Your task to perform on an android device: Search for flights from NYC to Barcelona Image 0: 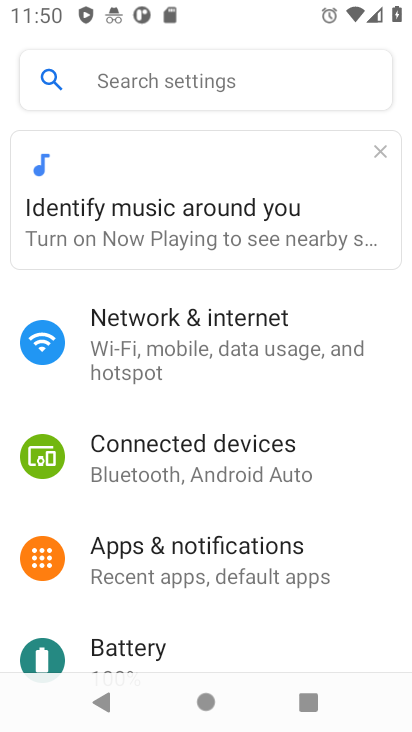
Step 0: press home button
Your task to perform on an android device: Search for flights from NYC to Barcelona Image 1: 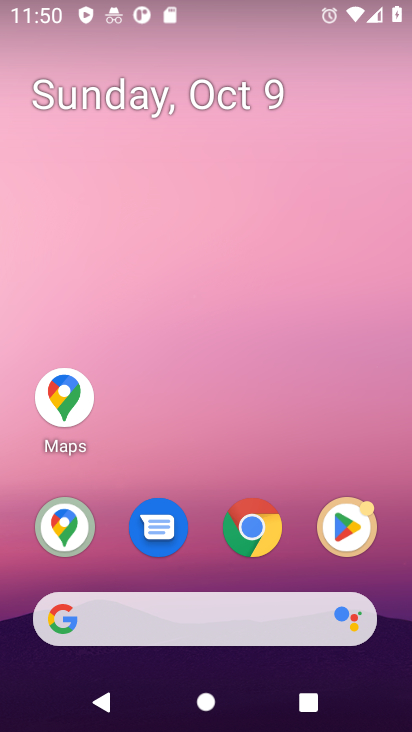
Step 1: click (270, 530)
Your task to perform on an android device: Search for flights from NYC to Barcelona Image 2: 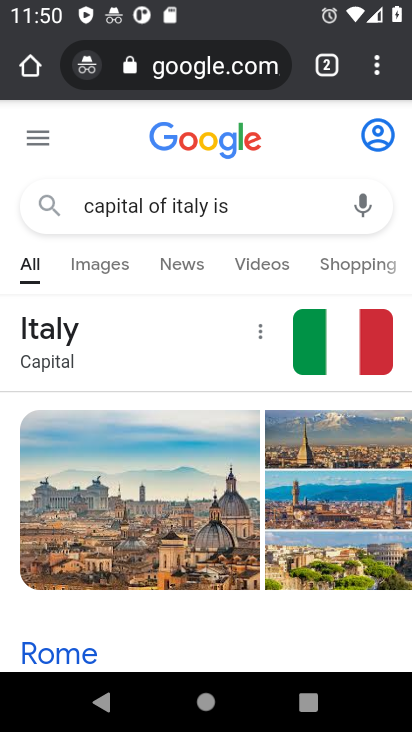
Step 2: click (196, 66)
Your task to perform on an android device: Search for flights from NYC to Barcelona Image 3: 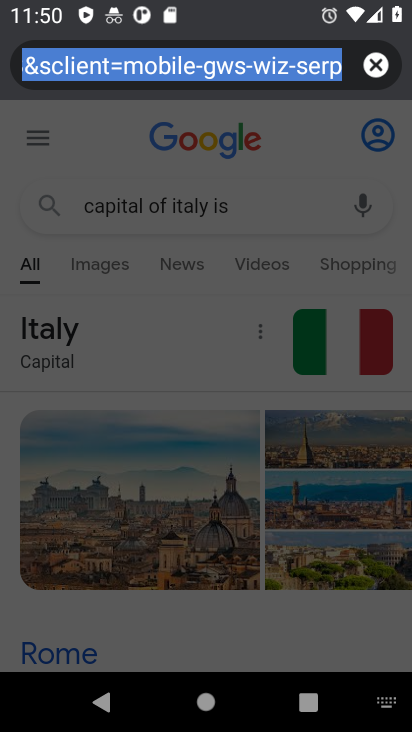
Step 3: type "flights from NYC to Barcelona"
Your task to perform on an android device: Search for flights from NYC to Barcelona Image 4: 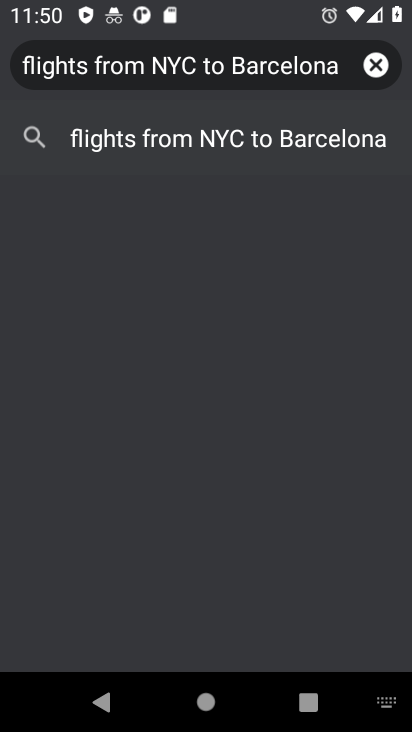
Step 4: click (267, 133)
Your task to perform on an android device: Search for flights from NYC to Barcelona Image 5: 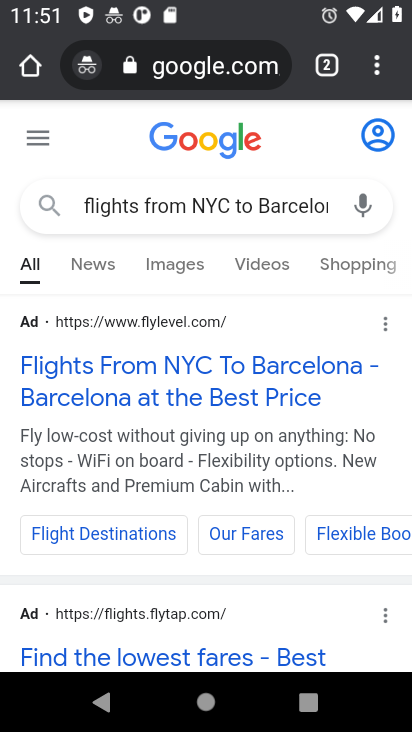
Step 5: click (204, 379)
Your task to perform on an android device: Search for flights from NYC to Barcelona Image 6: 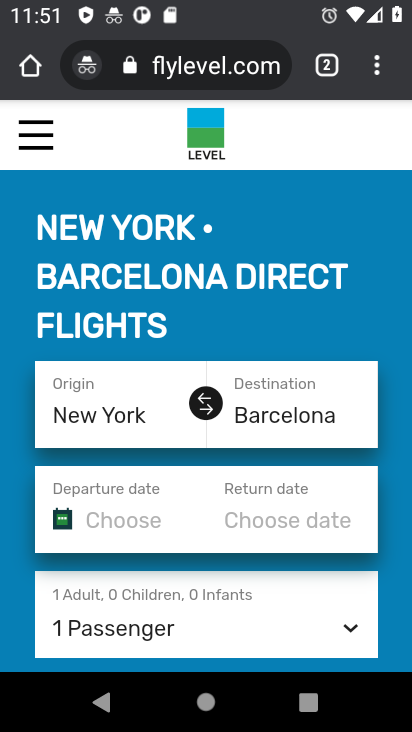
Step 6: drag from (253, 555) to (322, 249)
Your task to perform on an android device: Search for flights from NYC to Barcelona Image 7: 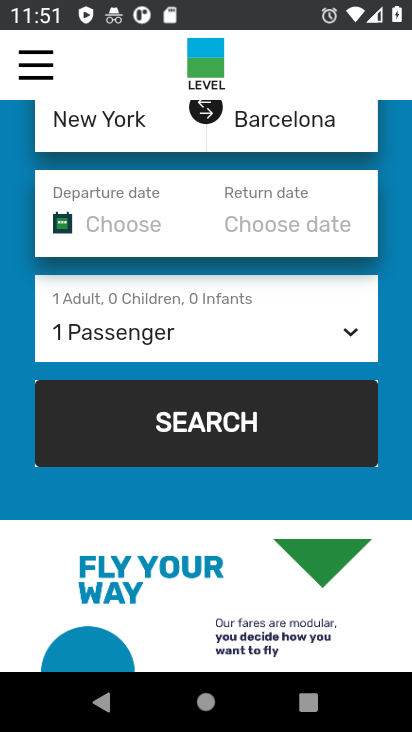
Step 7: click (153, 229)
Your task to perform on an android device: Search for flights from NYC to Barcelona Image 8: 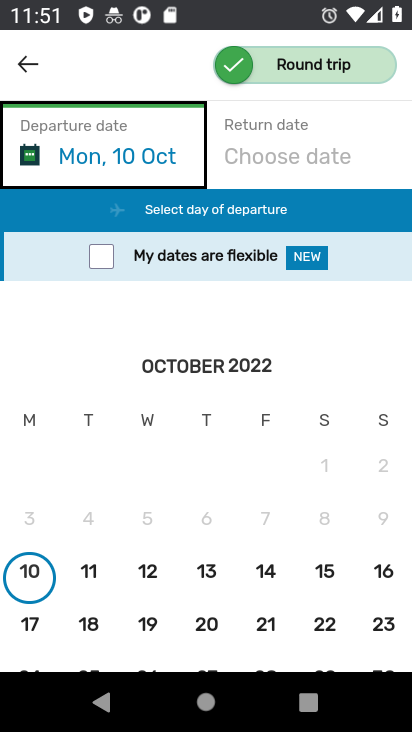
Step 8: click (36, 570)
Your task to perform on an android device: Search for flights from NYC to Barcelona Image 9: 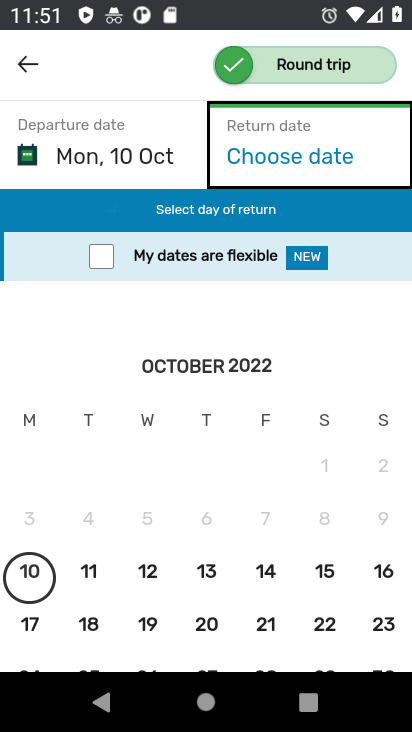
Step 9: click (284, 70)
Your task to perform on an android device: Search for flights from NYC to Barcelona Image 10: 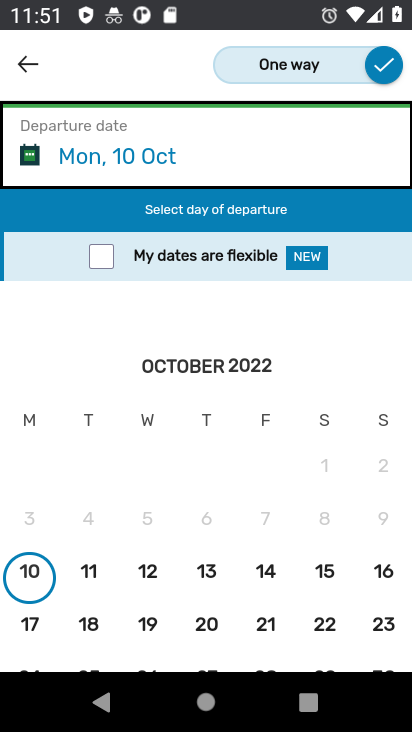
Step 10: click (29, 56)
Your task to perform on an android device: Search for flights from NYC to Barcelona Image 11: 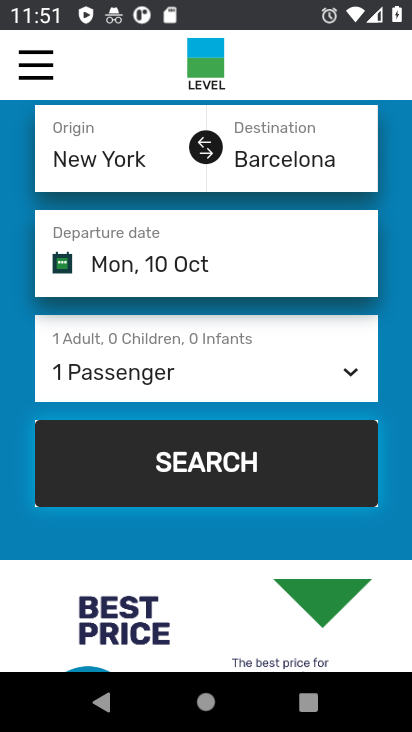
Step 11: click (180, 460)
Your task to perform on an android device: Search for flights from NYC to Barcelona Image 12: 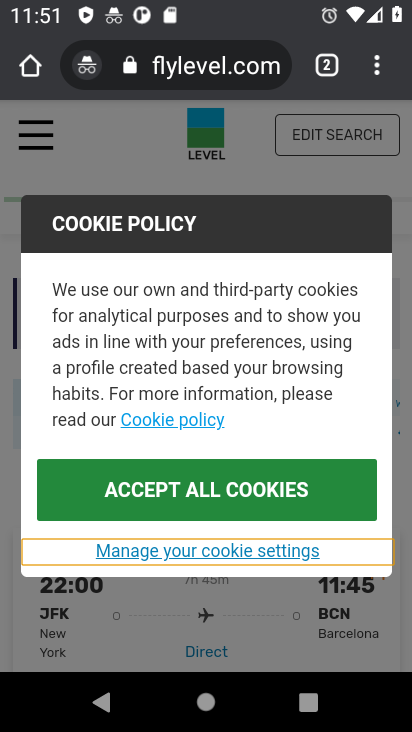
Step 12: click (237, 491)
Your task to perform on an android device: Search for flights from NYC to Barcelona Image 13: 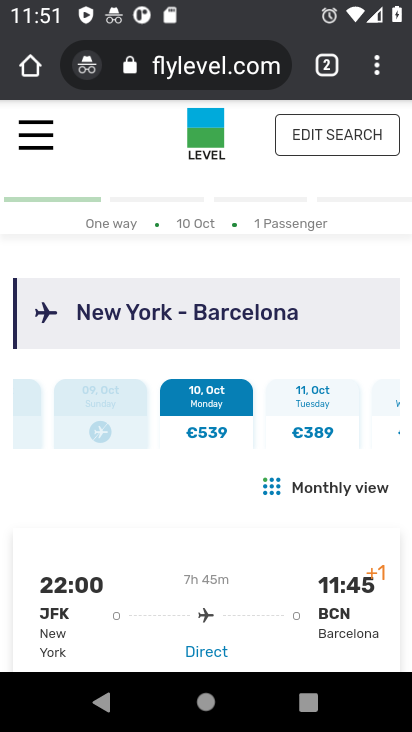
Step 13: task complete